Your task to perform on an android device: When is my next appointment? Image 0: 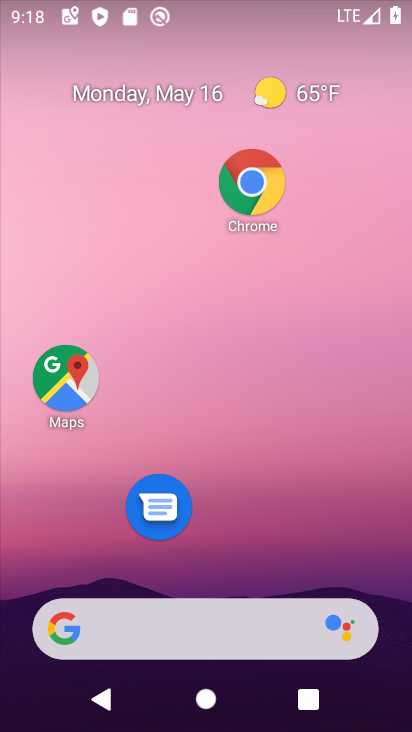
Step 0: drag from (208, 603) to (274, 0)
Your task to perform on an android device: When is my next appointment? Image 1: 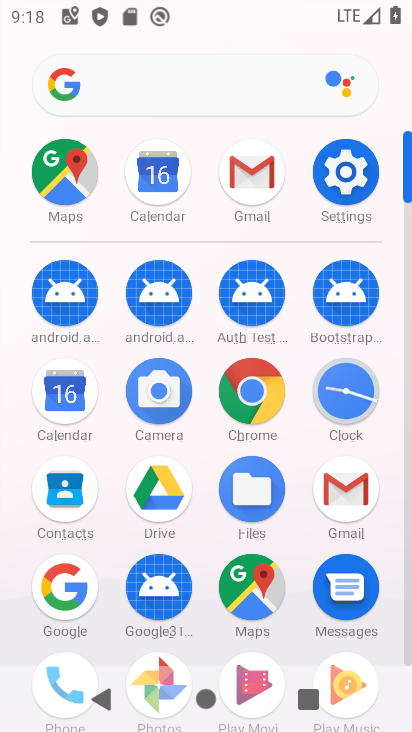
Step 1: click (62, 404)
Your task to perform on an android device: When is my next appointment? Image 2: 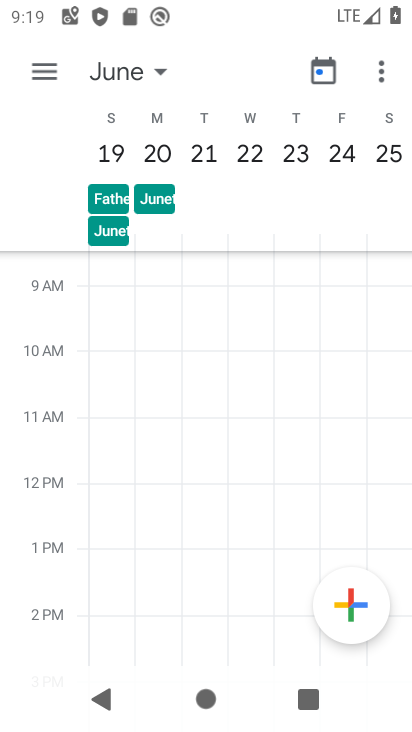
Step 2: task complete